Your task to perform on an android device: toggle javascript in the chrome app Image 0: 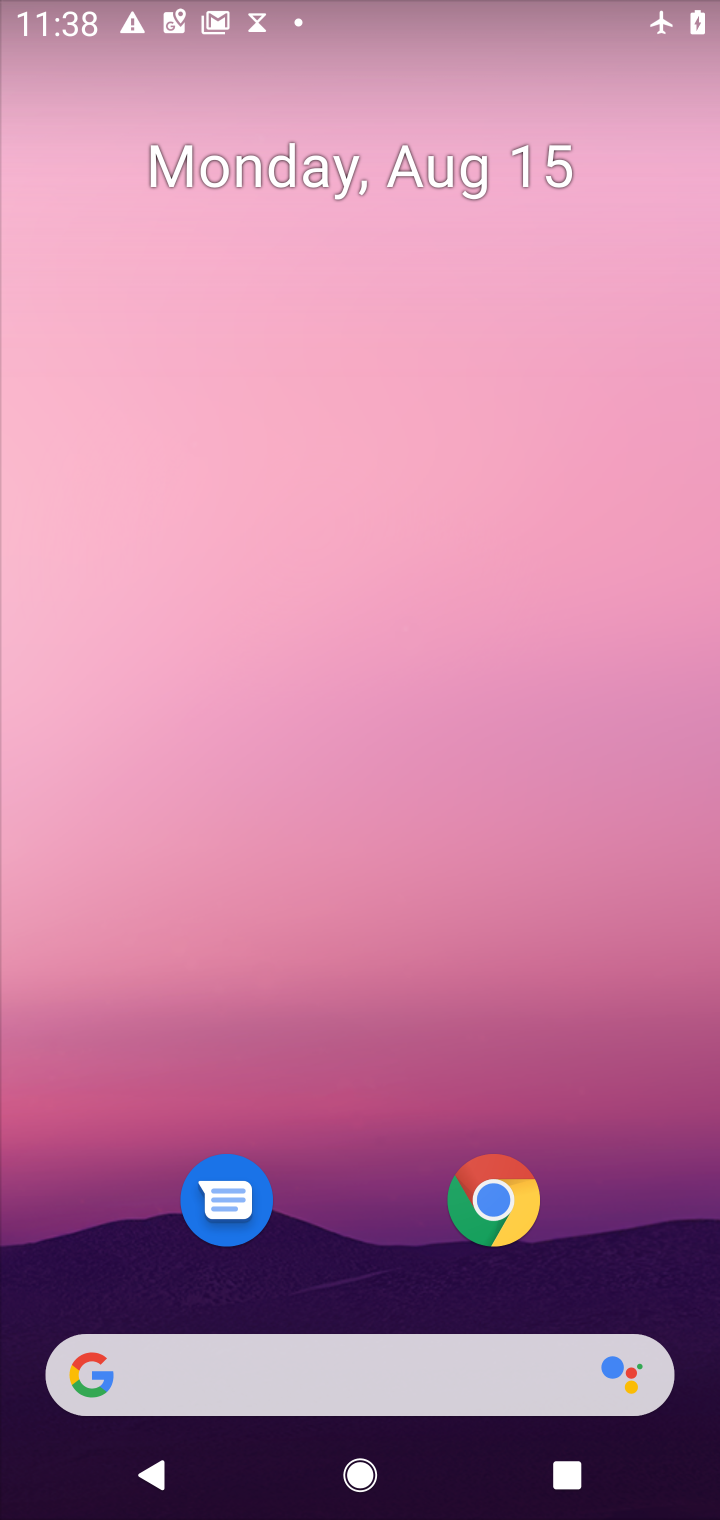
Step 0: click (465, 1188)
Your task to perform on an android device: toggle javascript in the chrome app Image 1: 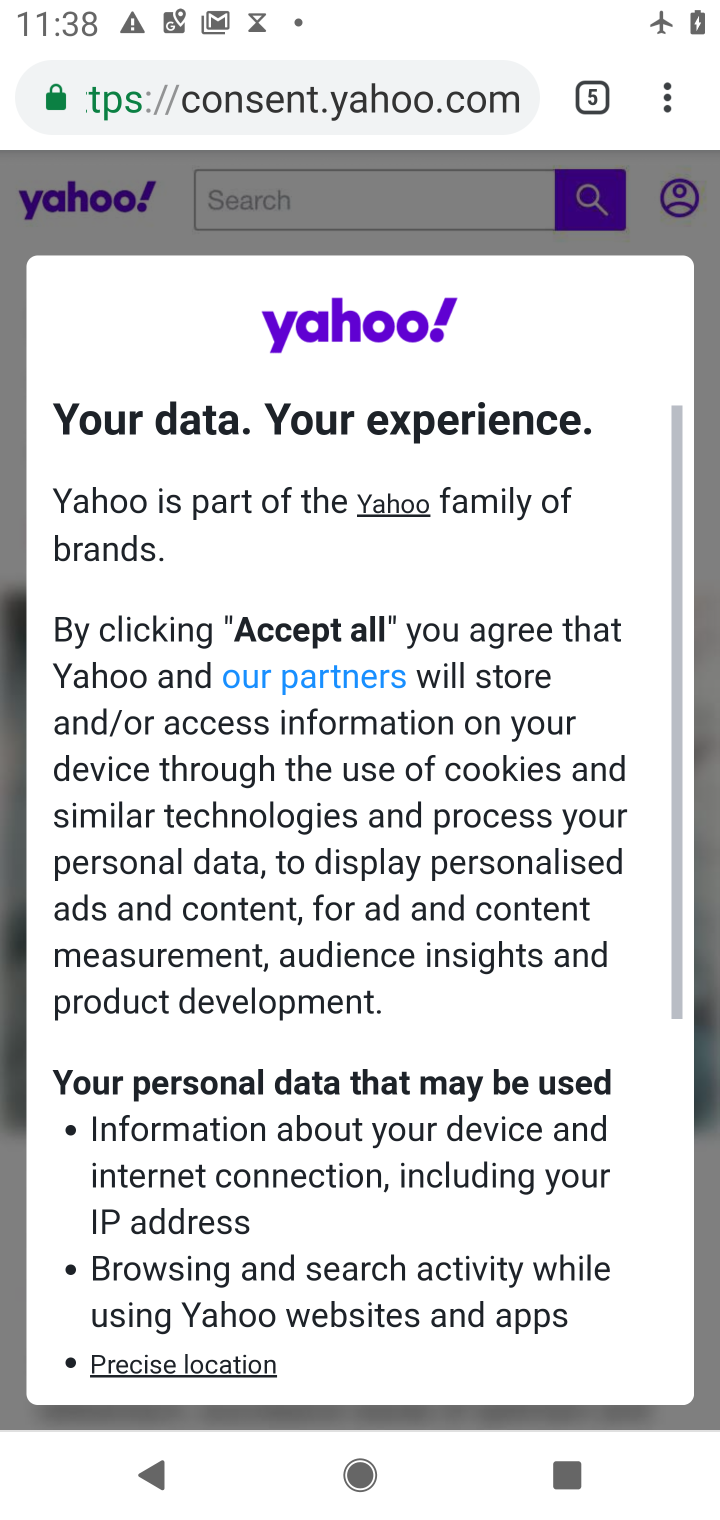
Step 1: click (665, 113)
Your task to perform on an android device: toggle javascript in the chrome app Image 2: 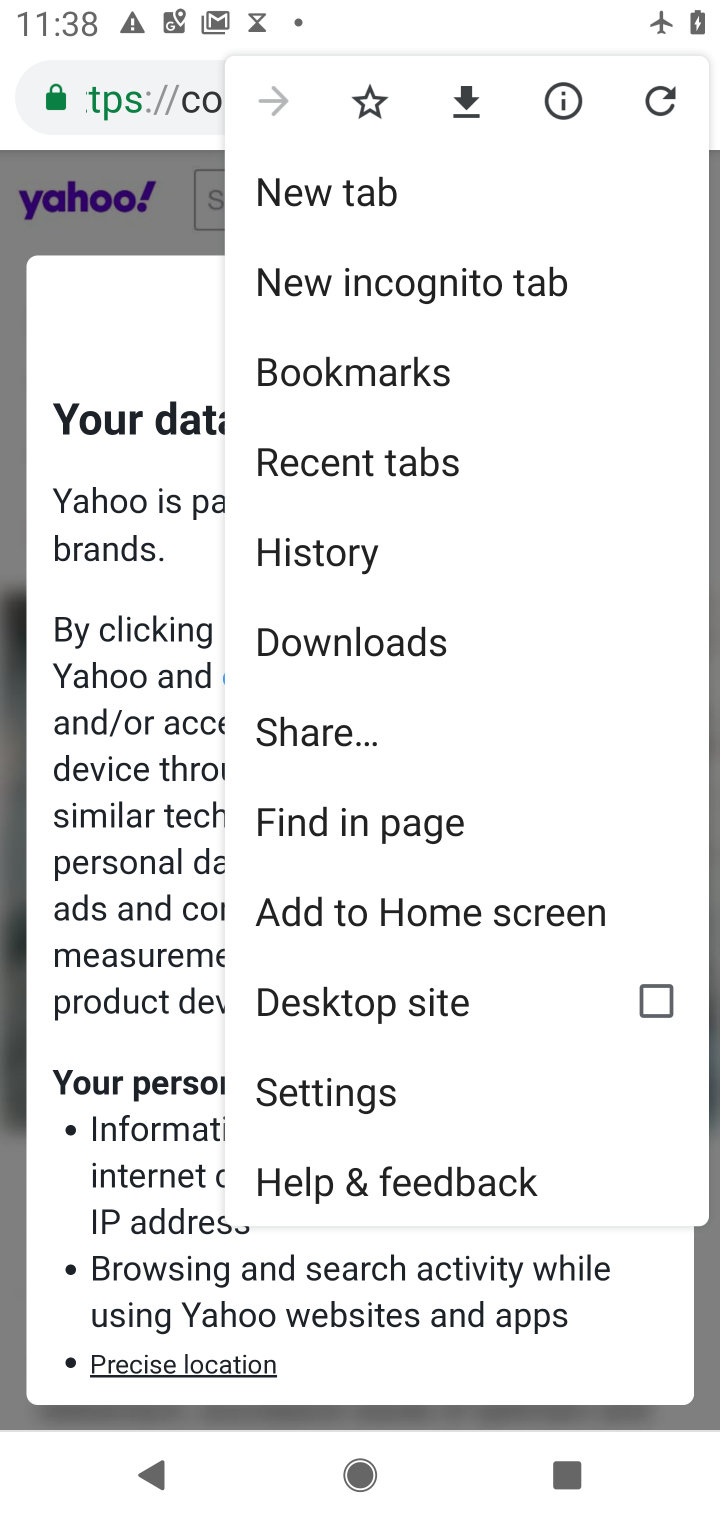
Step 2: click (316, 1104)
Your task to perform on an android device: toggle javascript in the chrome app Image 3: 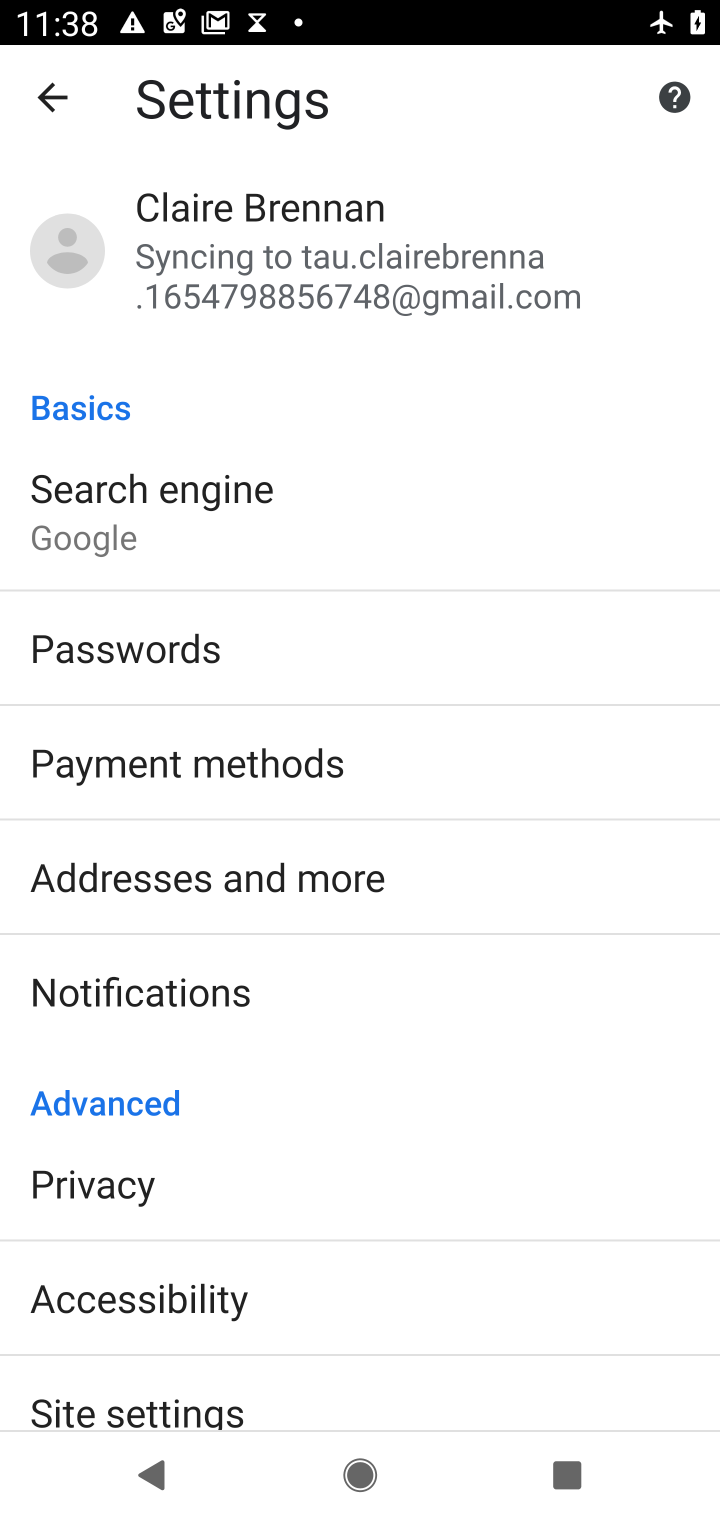
Step 3: drag from (237, 1276) to (240, 651)
Your task to perform on an android device: toggle javascript in the chrome app Image 4: 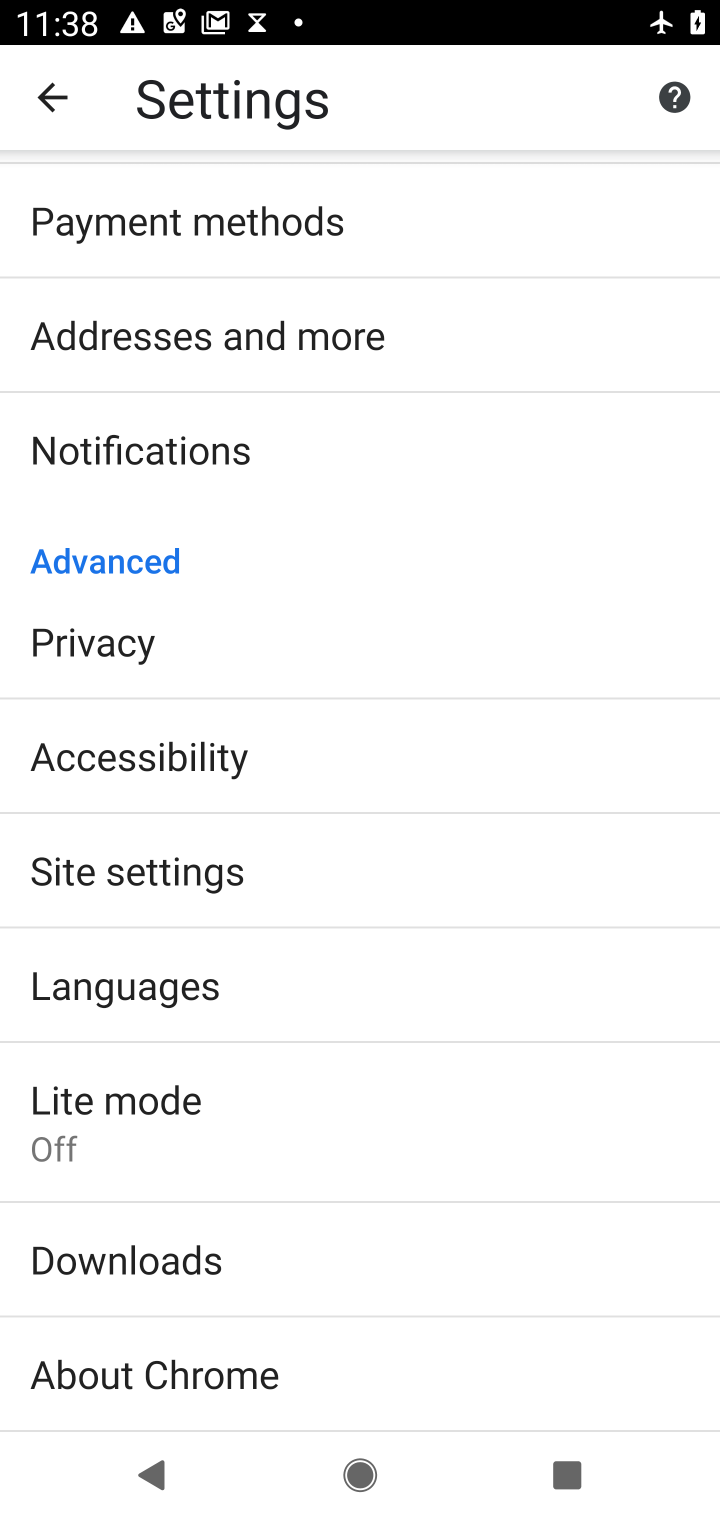
Step 4: click (162, 879)
Your task to perform on an android device: toggle javascript in the chrome app Image 5: 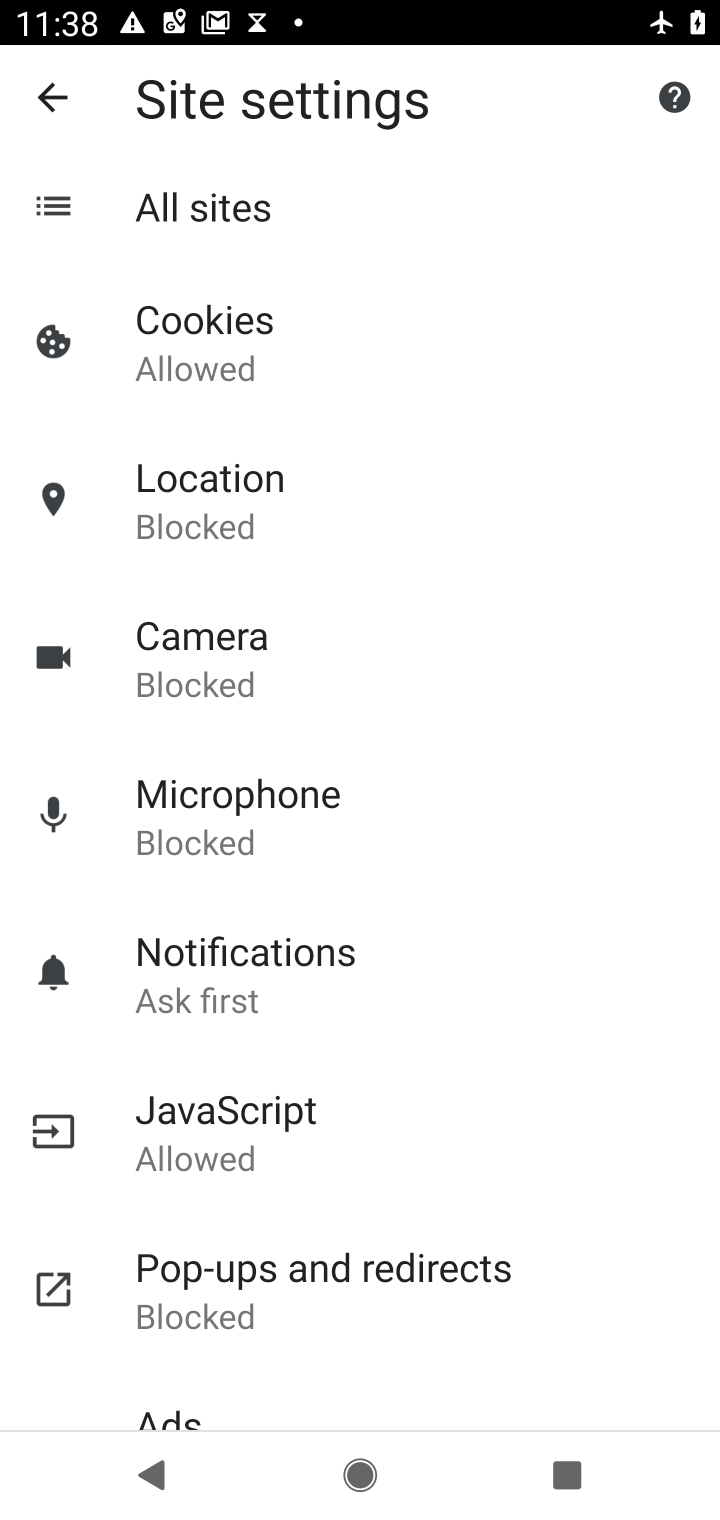
Step 5: click (278, 1147)
Your task to perform on an android device: toggle javascript in the chrome app Image 6: 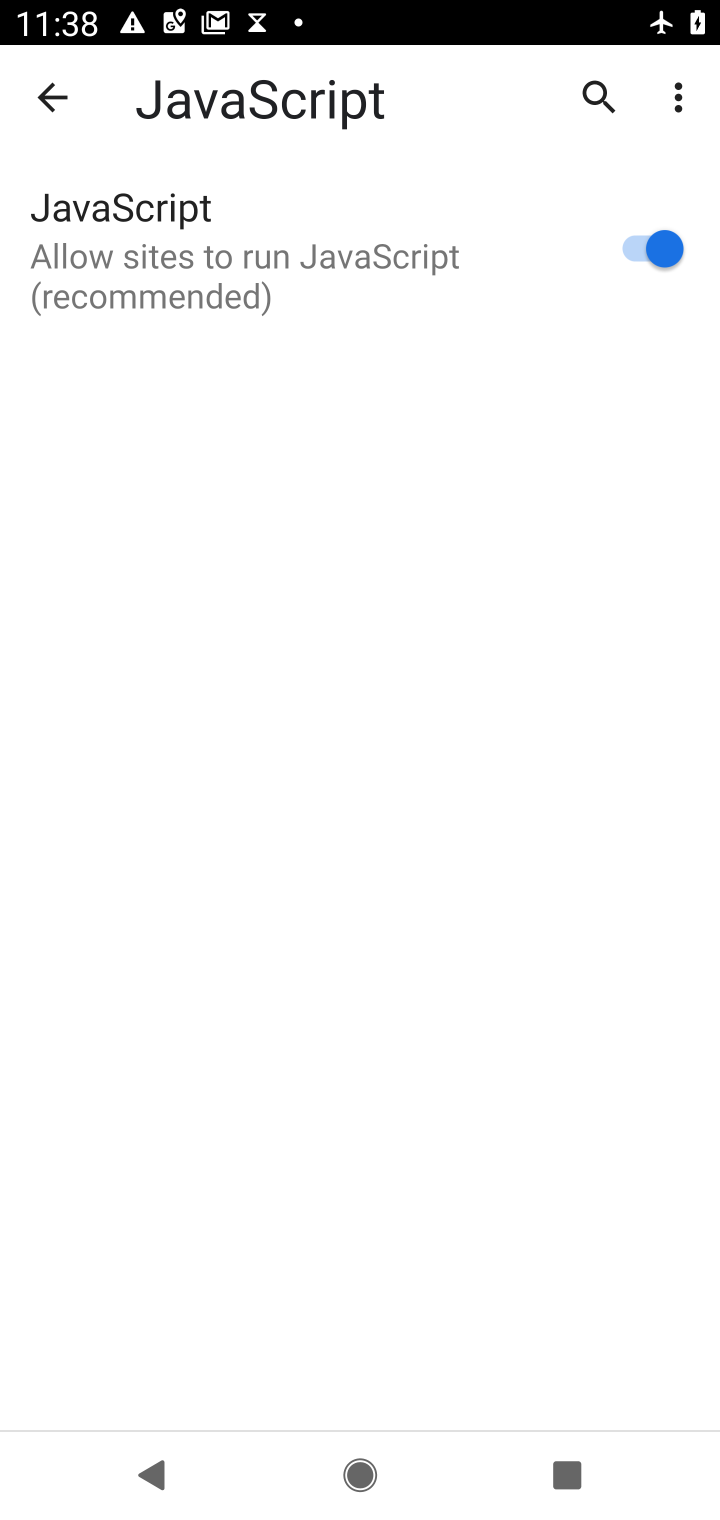
Step 6: click (637, 244)
Your task to perform on an android device: toggle javascript in the chrome app Image 7: 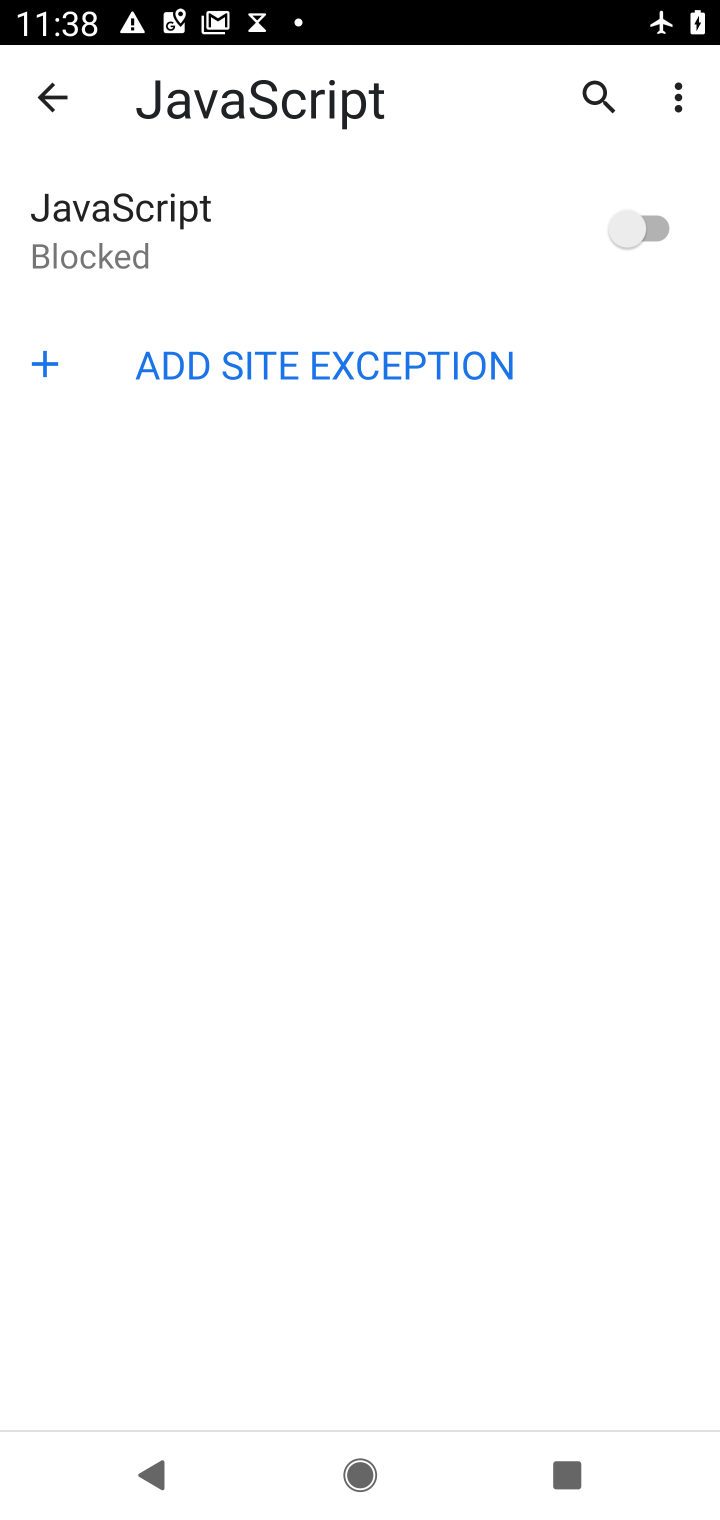
Step 7: task complete